Your task to perform on an android device: Open the Play Movies app and select the watchlist tab. Image 0: 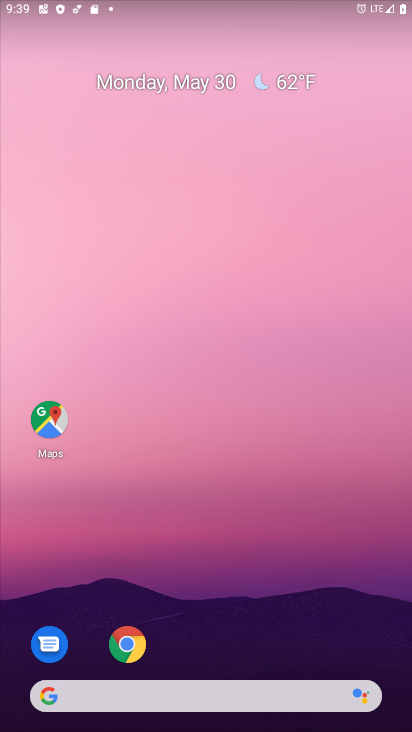
Step 0: drag from (379, 636) to (330, 97)
Your task to perform on an android device: Open the Play Movies app and select the watchlist tab. Image 1: 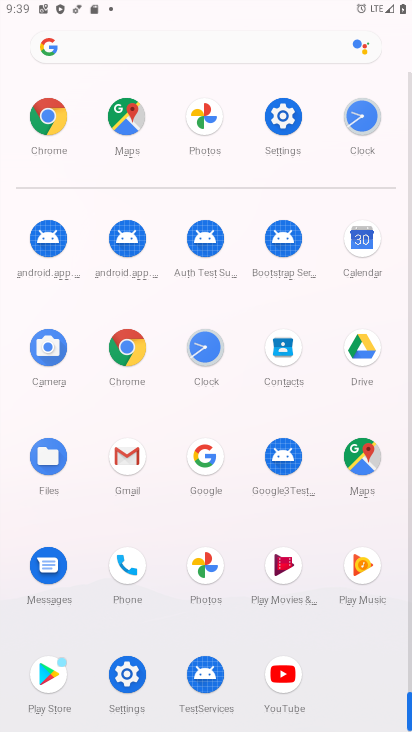
Step 1: click (285, 564)
Your task to perform on an android device: Open the Play Movies app and select the watchlist tab. Image 2: 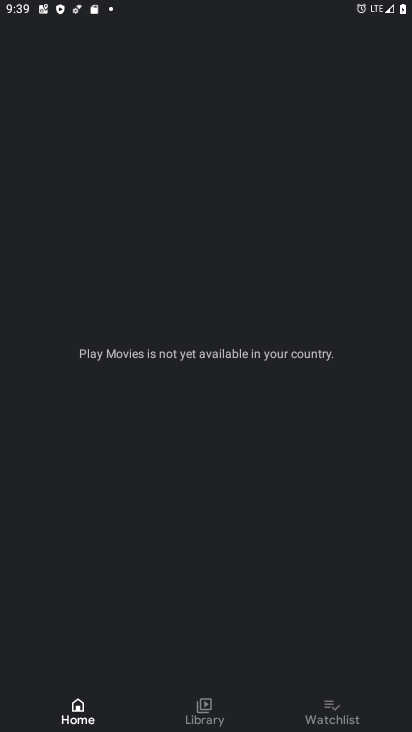
Step 2: click (326, 717)
Your task to perform on an android device: Open the Play Movies app and select the watchlist tab. Image 3: 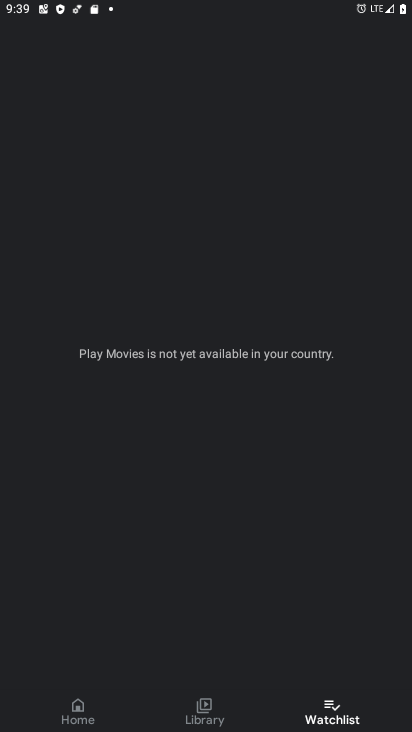
Step 3: task complete